Your task to perform on an android device: Do I have any events today? Image 0: 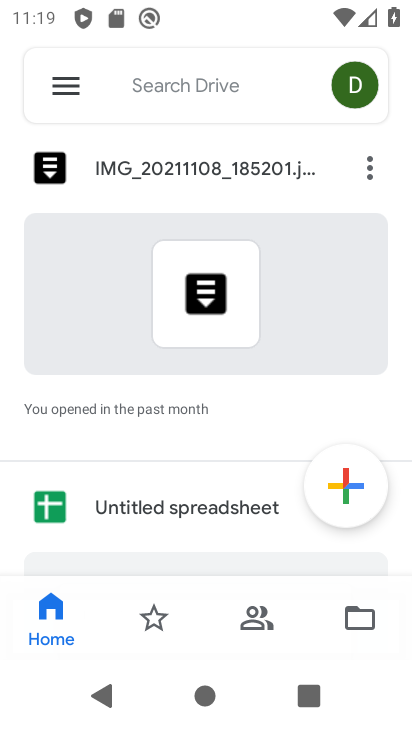
Step 0: press home button
Your task to perform on an android device: Do I have any events today? Image 1: 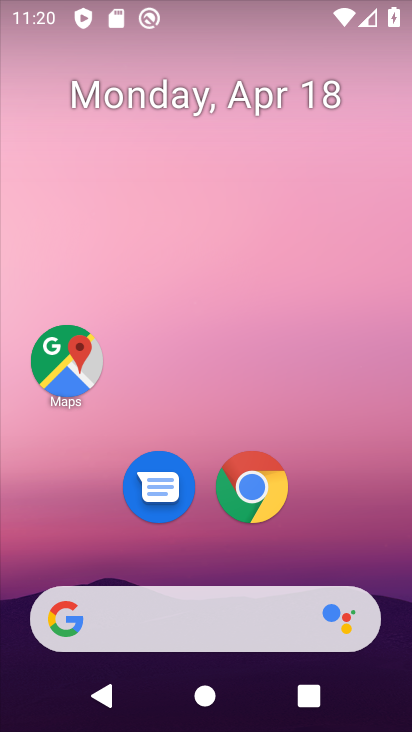
Step 1: drag from (160, 439) to (187, 161)
Your task to perform on an android device: Do I have any events today? Image 2: 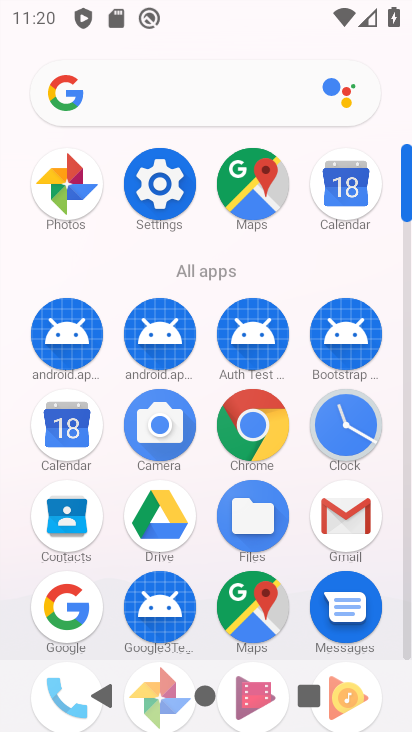
Step 2: click (66, 422)
Your task to perform on an android device: Do I have any events today? Image 3: 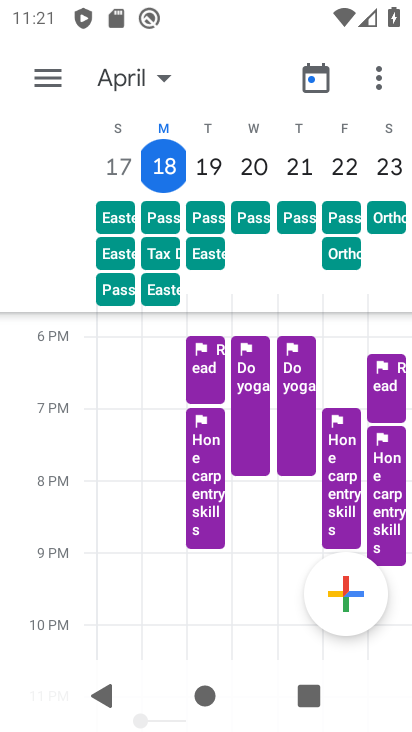
Step 3: click (166, 169)
Your task to perform on an android device: Do I have any events today? Image 4: 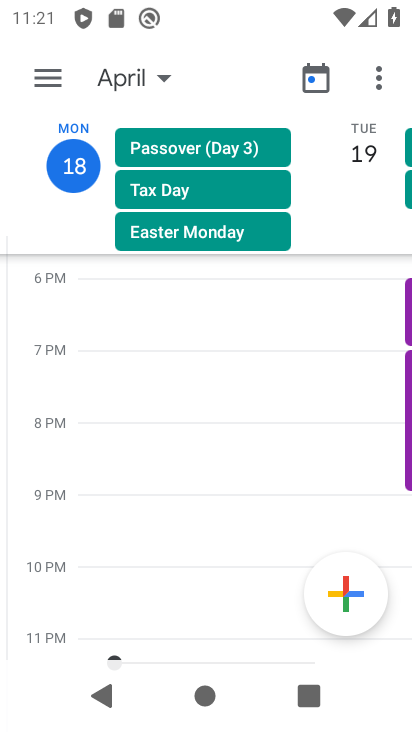
Step 4: task complete